Your task to perform on an android device: clear history in the chrome app Image 0: 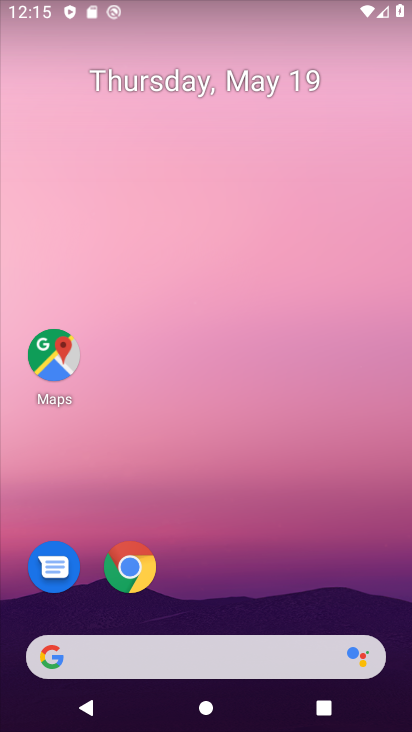
Step 0: click (142, 573)
Your task to perform on an android device: clear history in the chrome app Image 1: 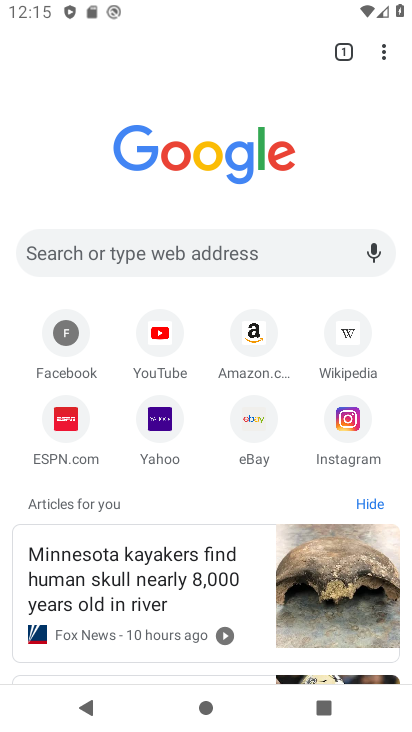
Step 1: click (382, 48)
Your task to perform on an android device: clear history in the chrome app Image 2: 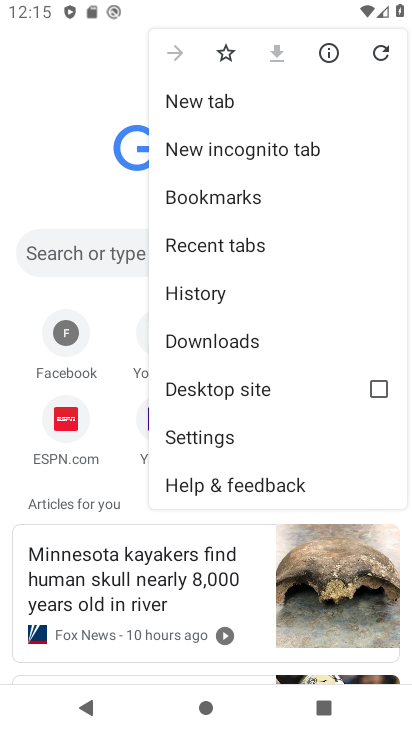
Step 2: click (231, 293)
Your task to perform on an android device: clear history in the chrome app Image 3: 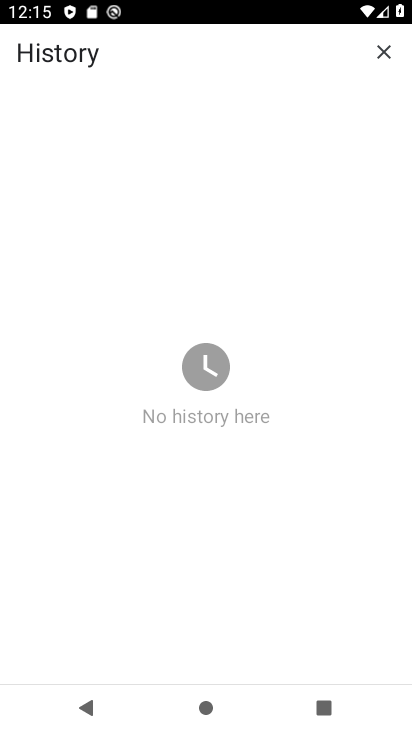
Step 3: task complete